Your task to perform on an android device: set default search engine in the chrome app Image 0: 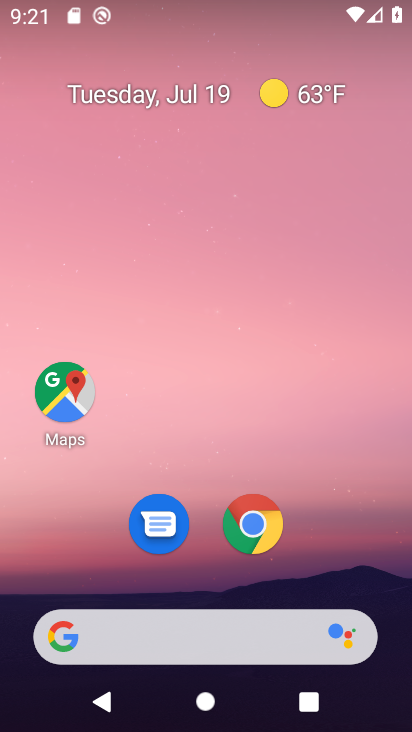
Step 0: press home button
Your task to perform on an android device: set default search engine in the chrome app Image 1: 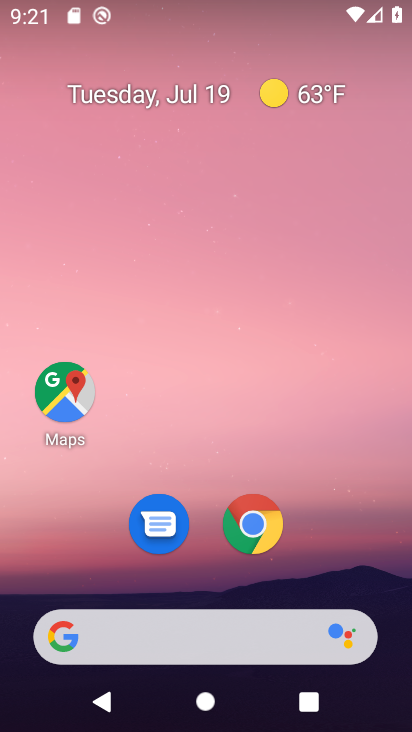
Step 1: click (249, 534)
Your task to perform on an android device: set default search engine in the chrome app Image 2: 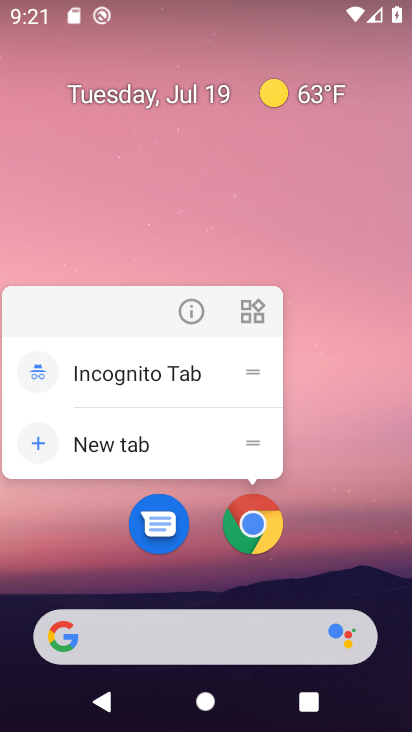
Step 2: click (252, 523)
Your task to perform on an android device: set default search engine in the chrome app Image 3: 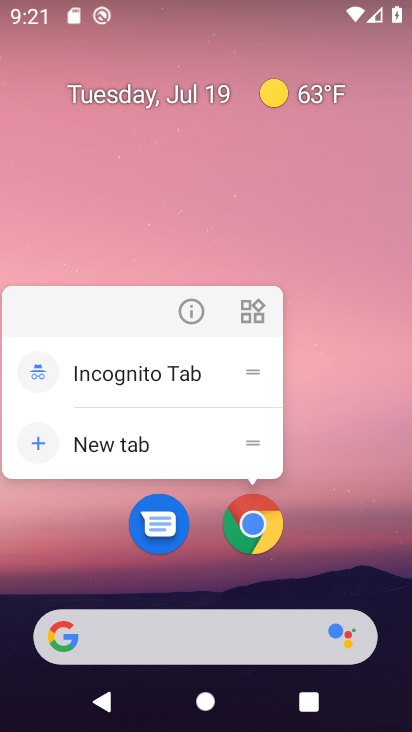
Step 3: click (252, 523)
Your task to perform on an android device: set default search engine in the chrome app Image 4: 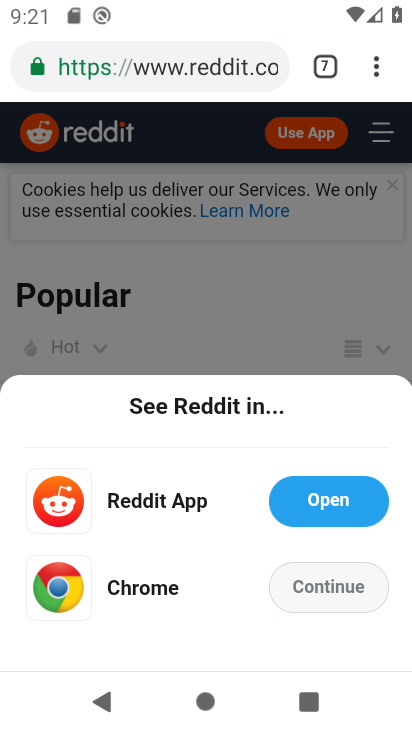
Step 4: drag from (372, 68) to (240, 521)
Your task to perform on an android device: set default search engine in the chrome app Image 5: 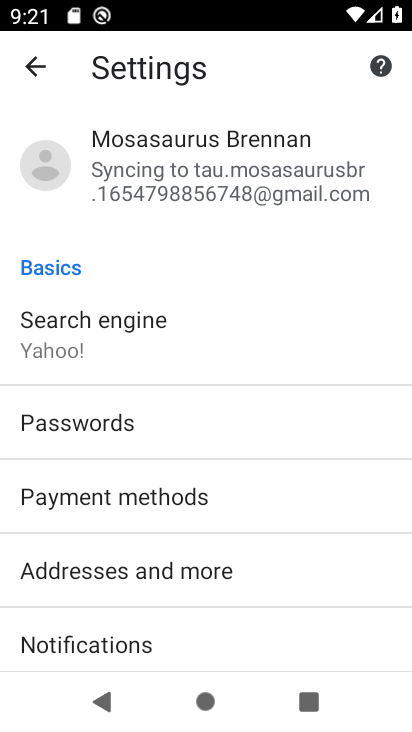
Step 5: click (105, 352)
Your task to perform on an android device: set default search engine in the chrome app Image 6: 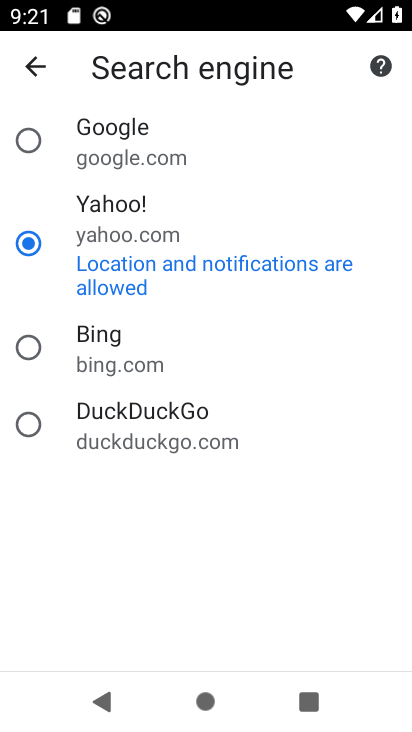
Step 6: click (32, 140)
Your task to perform on an android device: set default search engine in the chrome app Image 7: 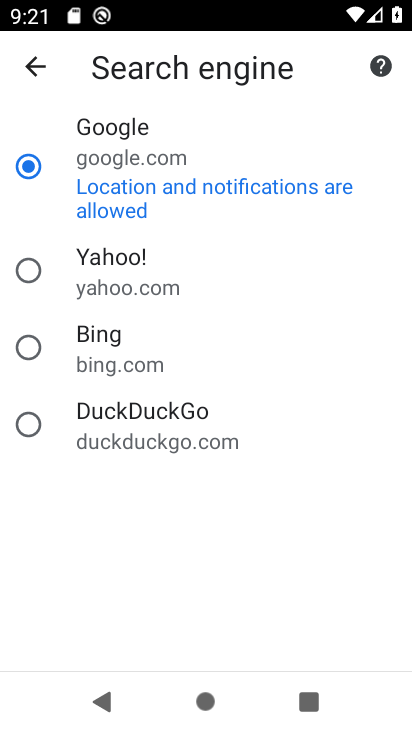
Step 7: task complete